Your task to perform on an android device: toggle sleep mode Image 0: 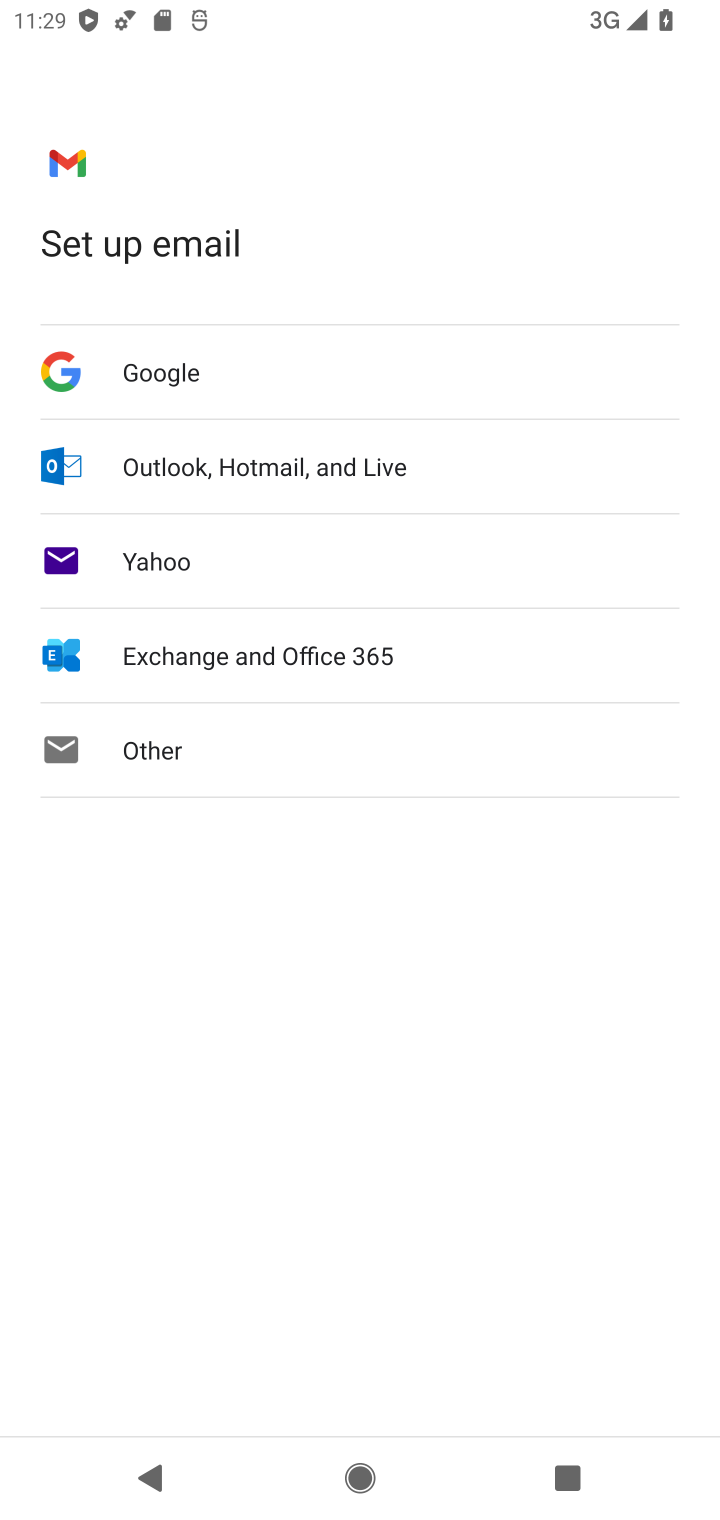
Step 0: press home button
Your task to perform on an android device: toggle sleep mode Image 1: 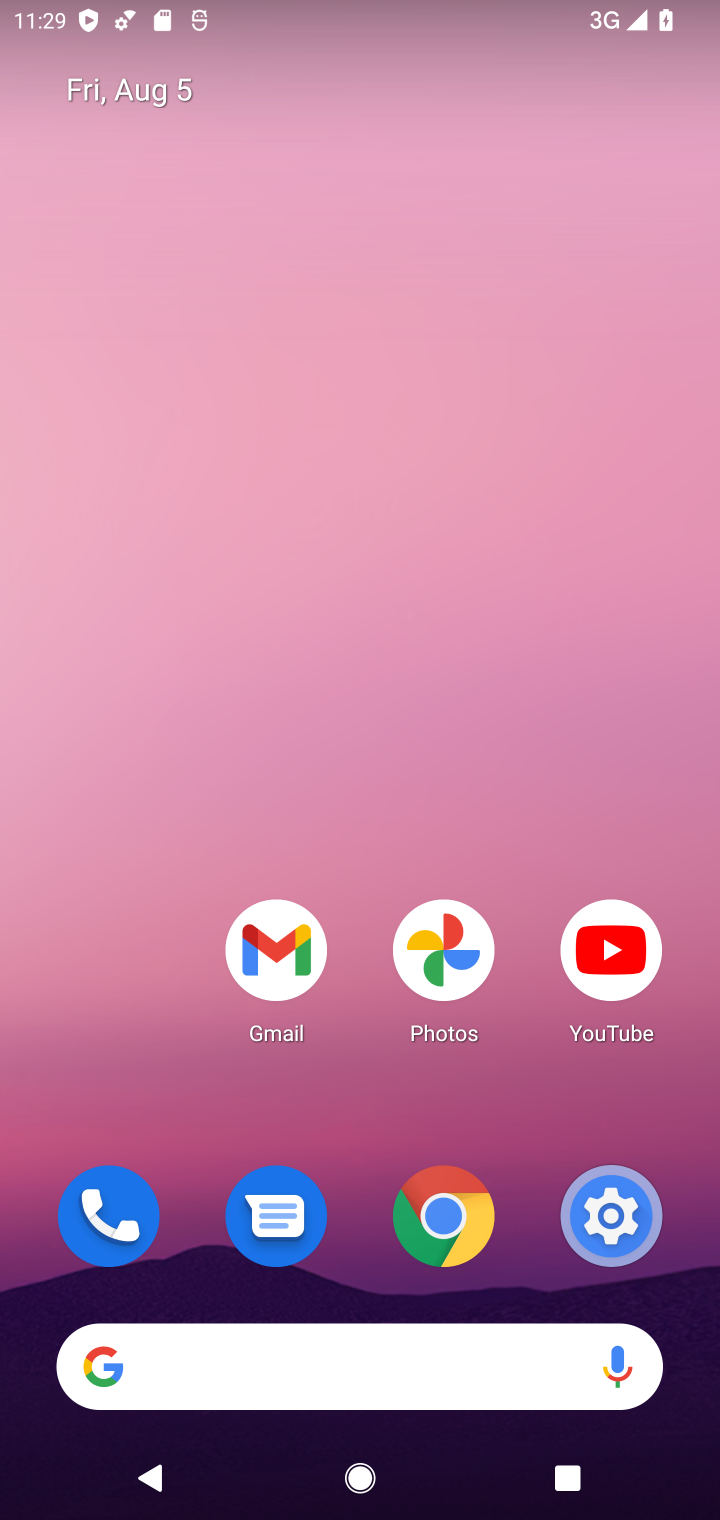
Step 1: drag from (342, 1367) to (242, 238)
Your task to perform on an android device: toggle sleep mode Image 2: 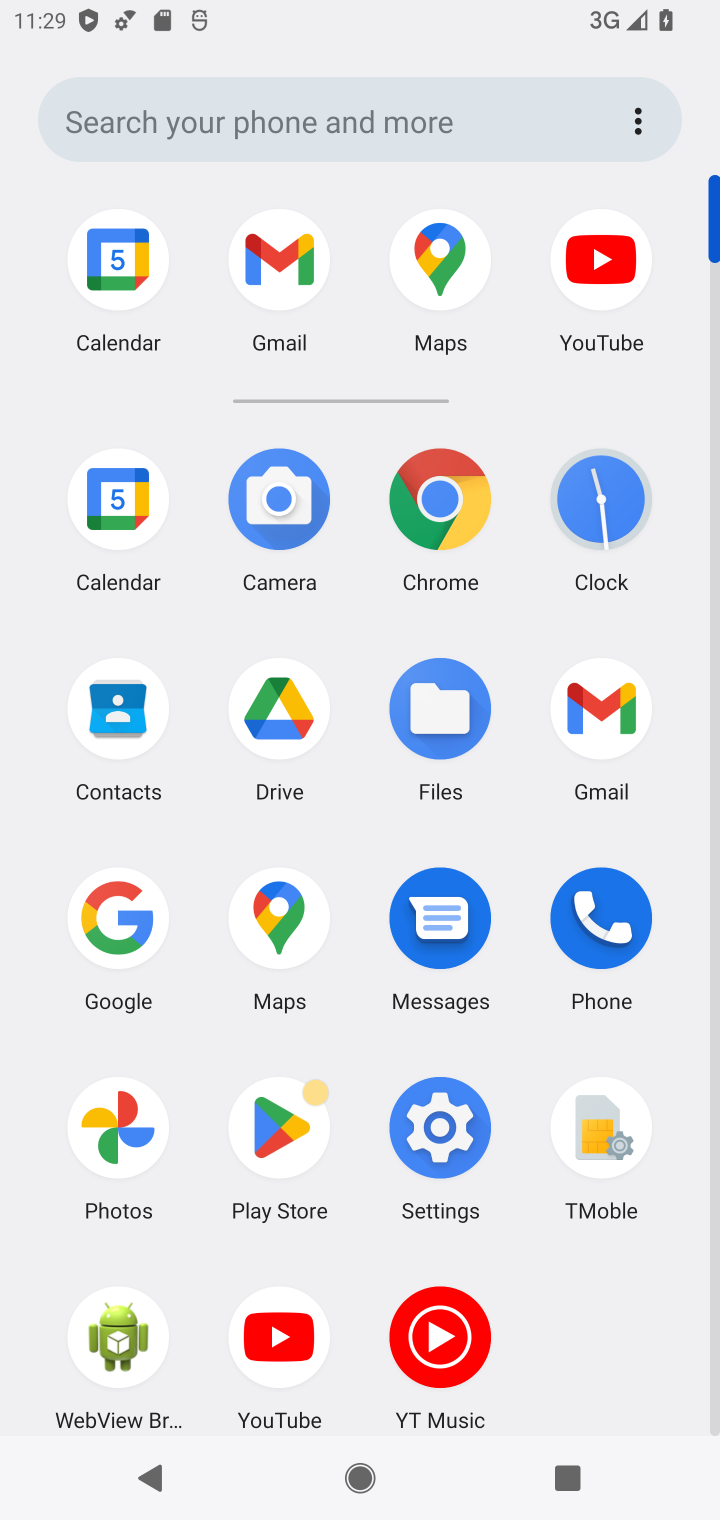
Step 2: click (427, 1124)
Your task to perform on an android device: toggle sleep mode Image 3: 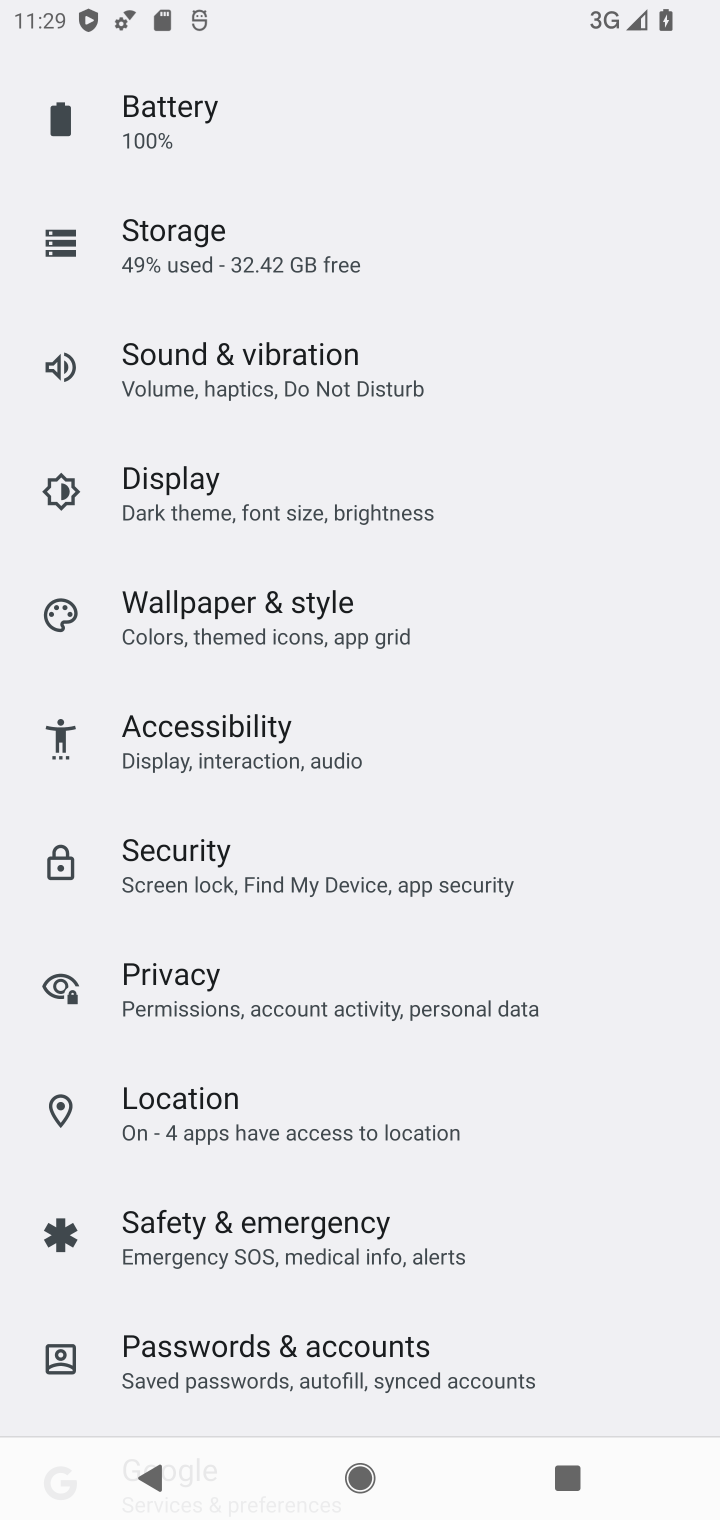
Step 3: task complete